Your task to perform on an android device: change the clock display to analog Image 0: 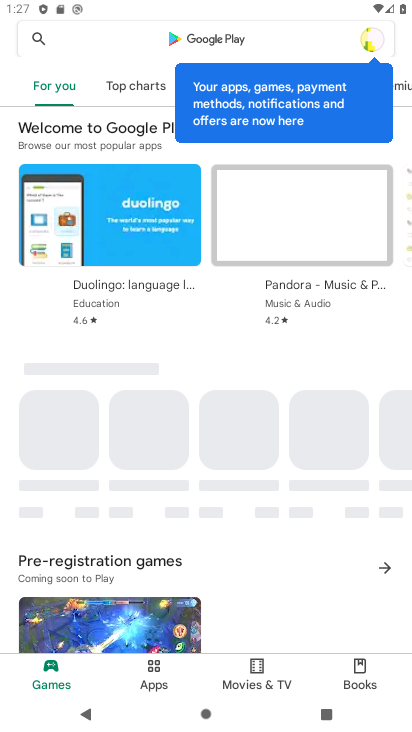
Step 0: press home button
Your task to perform on an android device: change the clock display to analog Image 1: 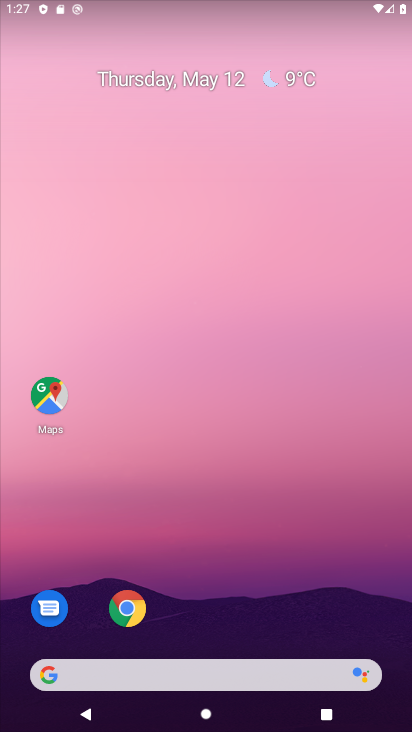
Step 1: drag from (199, 639) to (122, 232)
Your task to perform on an android device: change the clock display to analog Image 2: 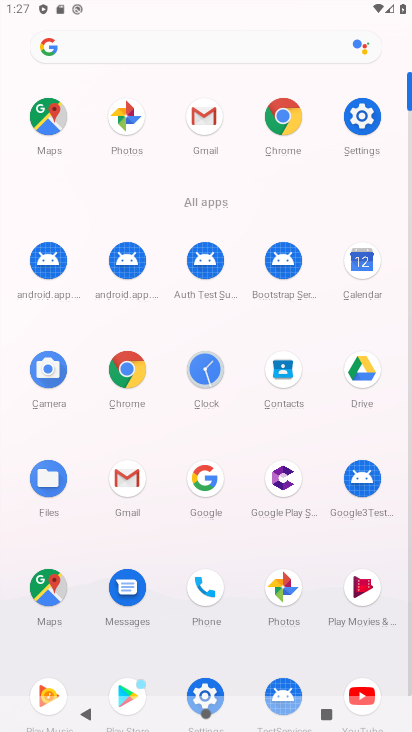
Step 2: click (203, 371)
Your task to perform on an android device: change the clock display to analog Image 3: 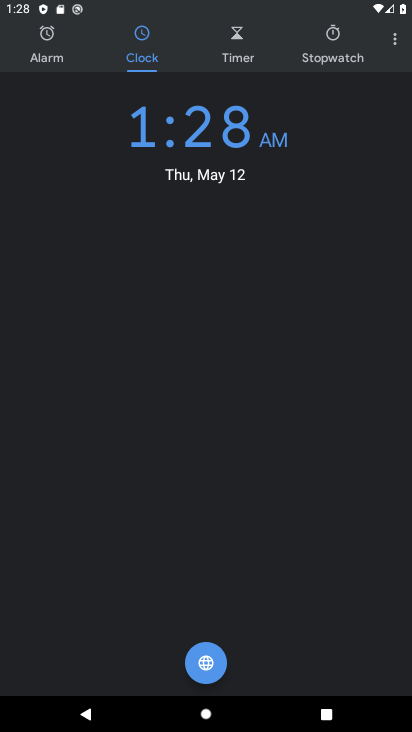
Step 3: click (395, 37)
Your task to perform on an android device: change the clock display to analog Image 4: 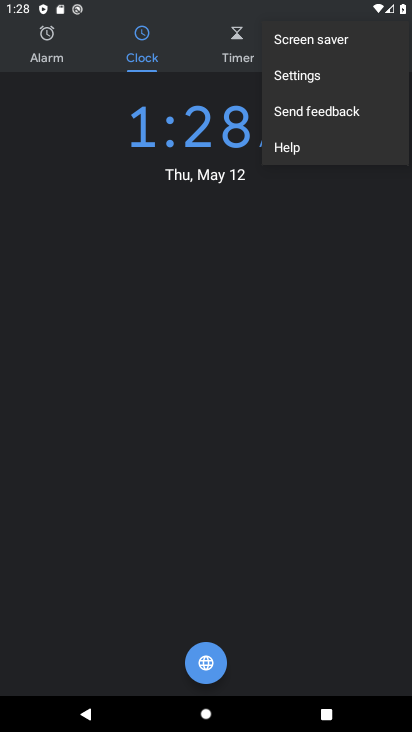
Step 4: click (304, 76)
Your task to perform on an android device: change the clock display to analog Image 5: 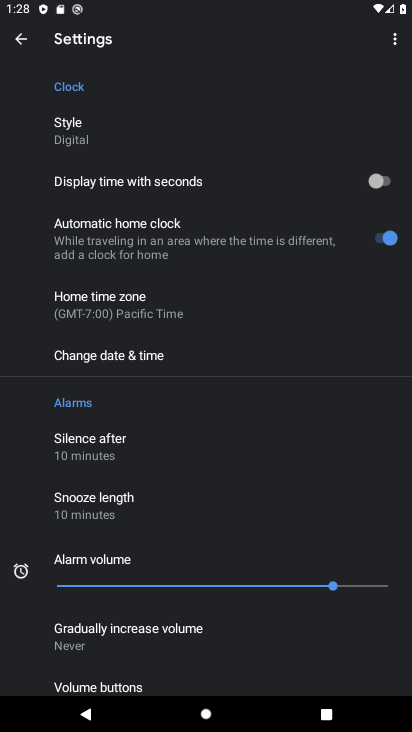
Step 5: click (74, 135)
Your task to perform on an android device: change the clock display to analog Image 6: 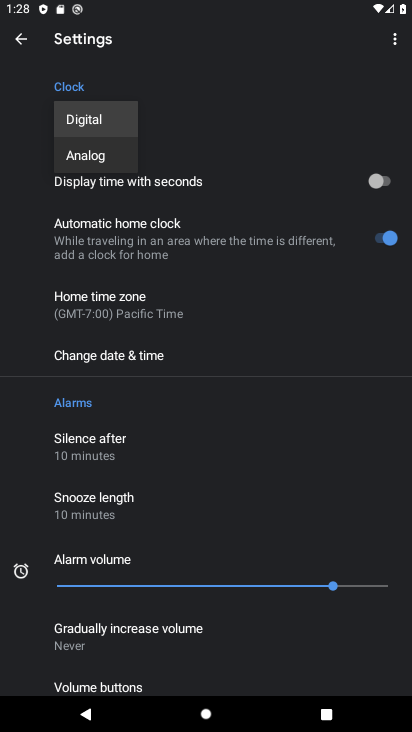
Step 6: click (81, 162)
Your task to perform on an android device: change the clock display to analog Image 7: 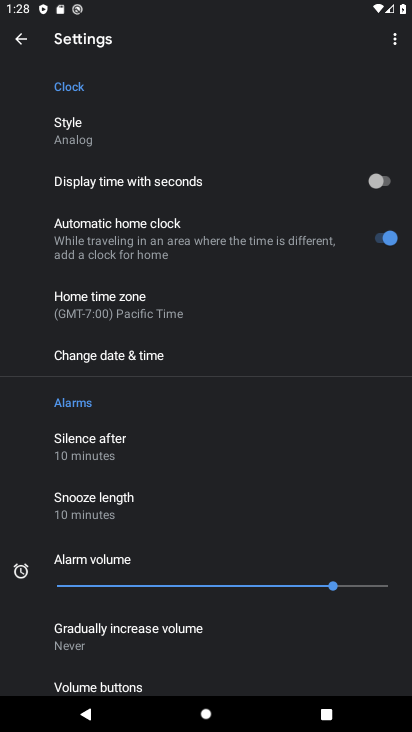
Step 7: task complete